Your task to perform on an android device: turn off notifications settings in the gmail app Image 0: 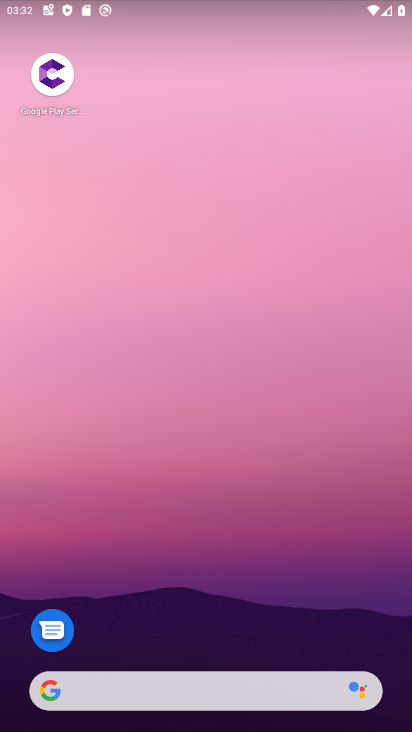
Step 0: drag from (152, 652) to (219, 166)
Your task to perform on an android device: turn off notifications settings in the gmail app Image 1: 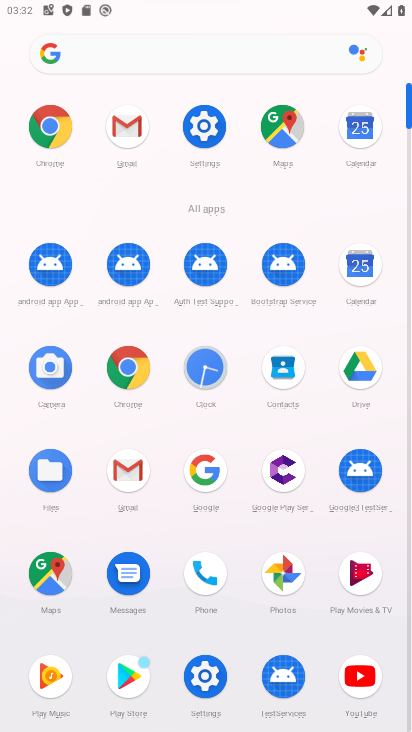
Step 1: click (127, 470)
Your task to perform on an android device: turn off notifications settings in the gmail app Image 2: 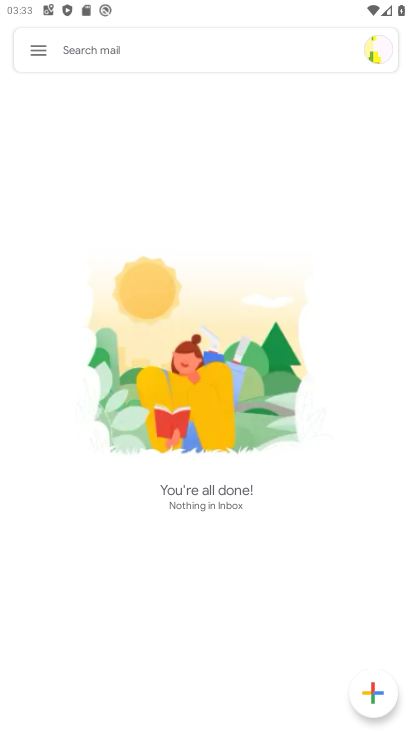
Step 2: click (24, 42)
Your task to perform on an android device: turn off notifications settings in the gmail app Image 3: 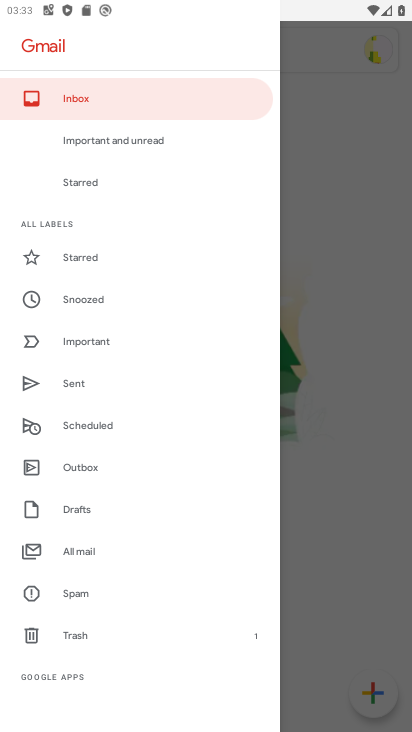
Step 3: drag from (117, 394) to (163, 156)
Your task to perform on an android device: turn off notifications settings in the gmail app Image 4: 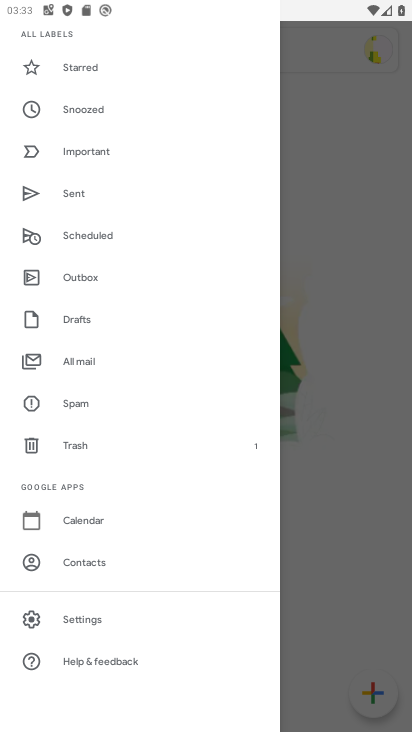
Step 4: click (79, 618)
Your task to perform on an android device: turn off notifications settings in the gmail app Image 5: 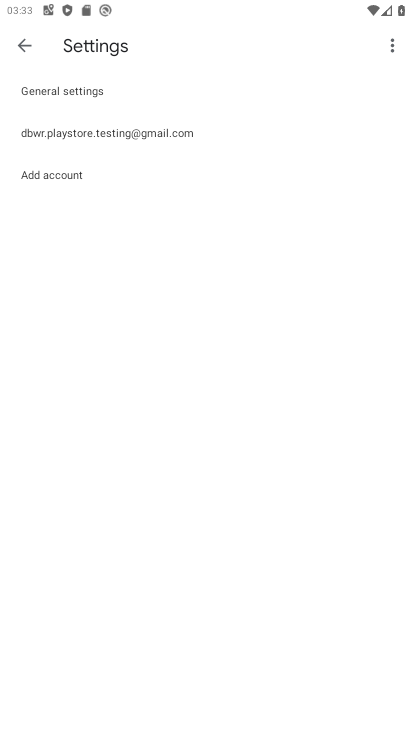
Step 5: click (119, 125)
Your task to perform on an android device: turn off notifications settings in the gmail app Image 6: 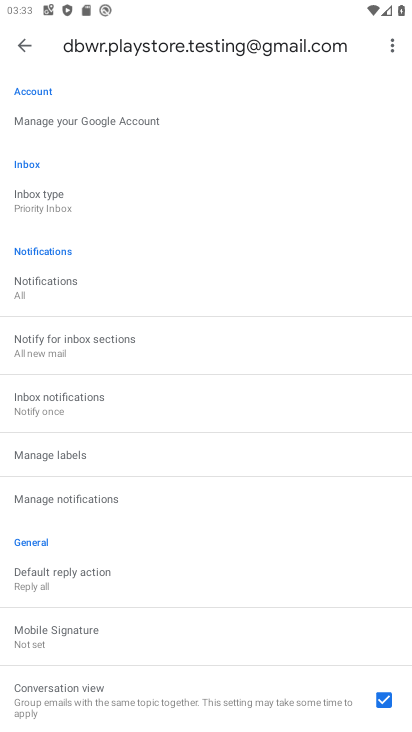
Step 6: click (54, 297)
Your task to perform on an android device: turn off notifications settings in the gmail app Image 7: 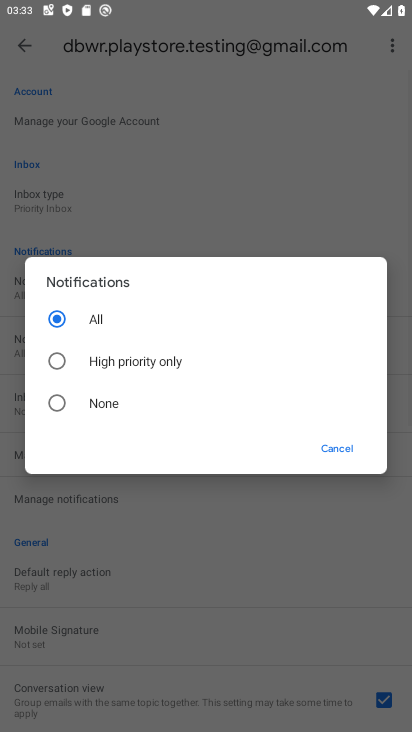
Step 7: click (102, 404)
Your task to perform on an android device: turn off notifications settings in the gmail app Image 8: 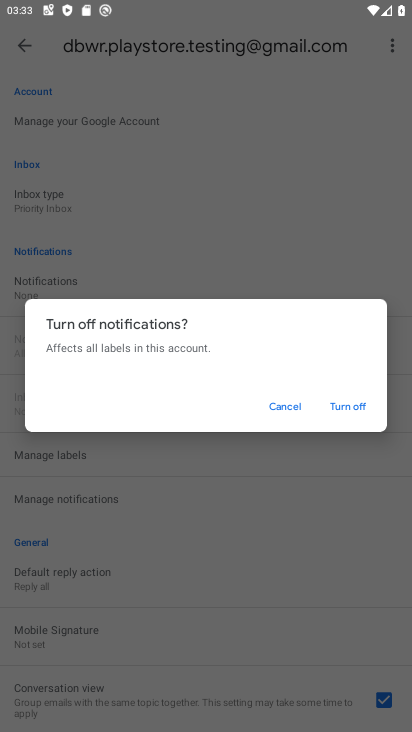
Step 8: click (346, 396)
Your task to perform on an android device: turn off notifications settings in the gmail app Image 9: 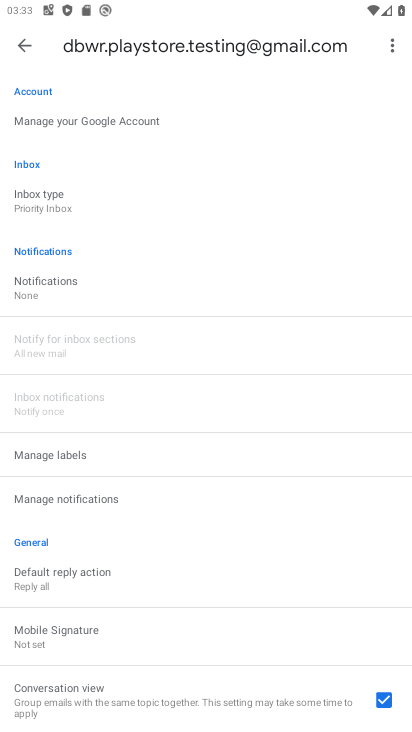
Step 9: task complete